Your task to perform on an android device: open a bookmark in the chrome app Image 0: 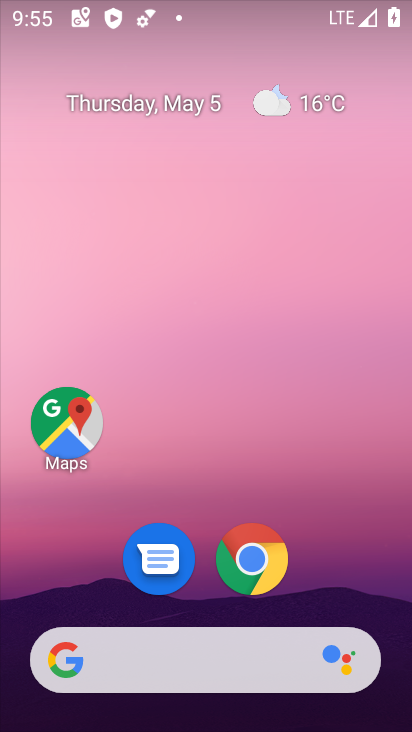
Step 0: click (247, 556)
Your task to perform on an android device: open a bookmark in the chrome app Image 1: 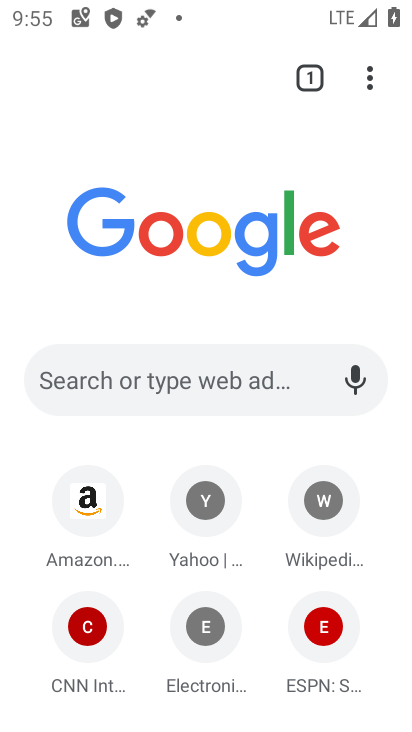
Step 1: click (368, 94)
Your task to perform on an android device: open a bookmark in the chrome app Image 2: 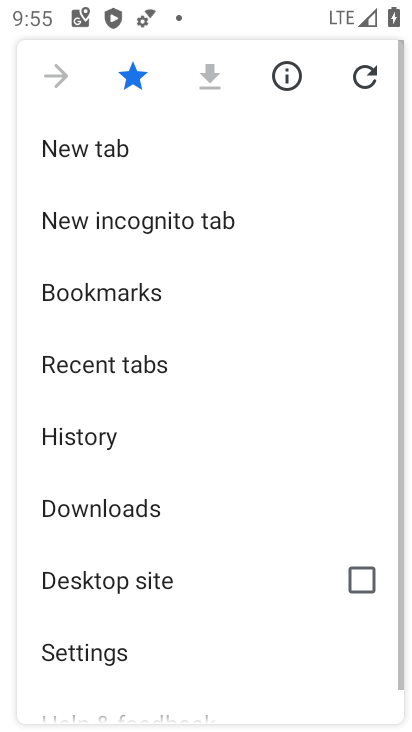
Step 2: click (127, 307)
Your task to perform on an android device: open a bookmark in the chrome app Image 3: 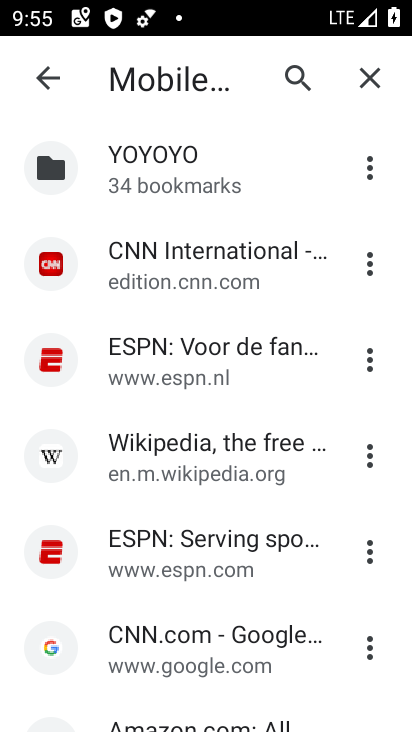
Step 3: drag from (196, 552) to (239, 345)
Your task to perform on an android device: open a bookmark in the chrome app Image 4: 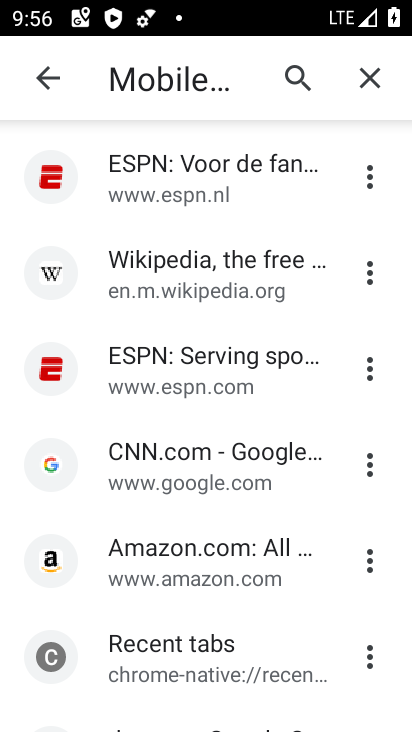
Step 4: click (178, 300)
Your task to perform on an android device: open a bookmark in the chrome app Image 5: 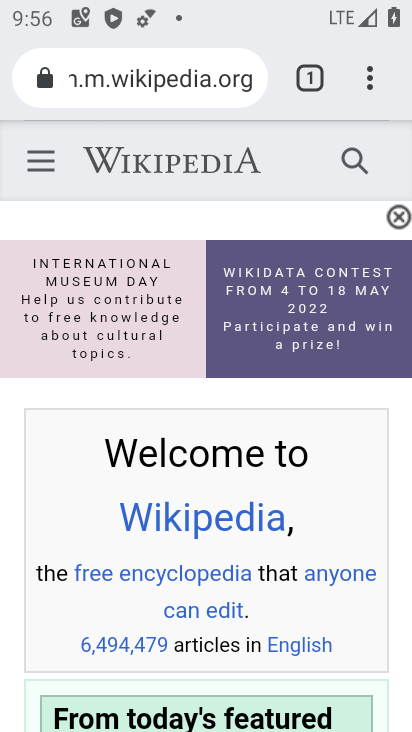
Step 5: task complete